Your task to perform on an android device: Go to ESPN.com Image 0: 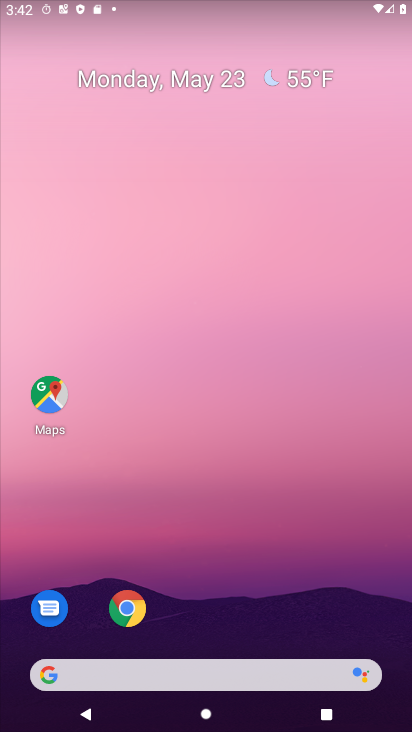
Step 0: click (137, 602)
Your task to perform on an android device: Go to ESPN.com Image 1: 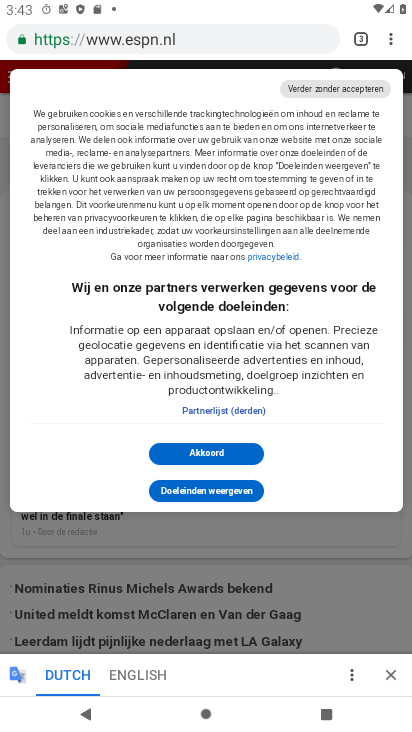
Step 1: task complete